Your task to perform on an android device: make emails show in primary in the gmail app Image 0: 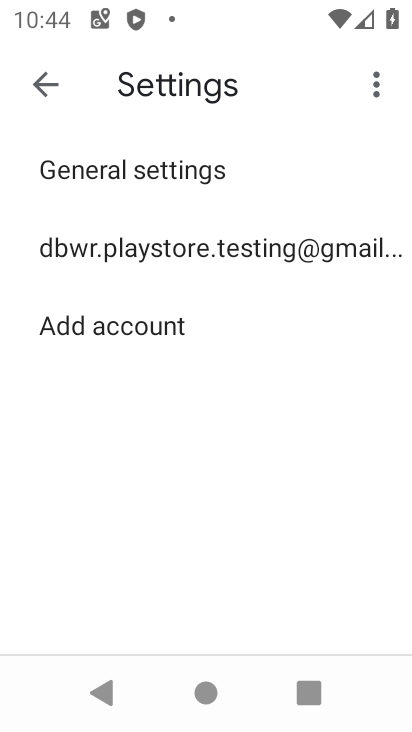
Step 0: click (127, 165)
Your task to perform on an android device: make emails show in primary in the gmail app Image 1: 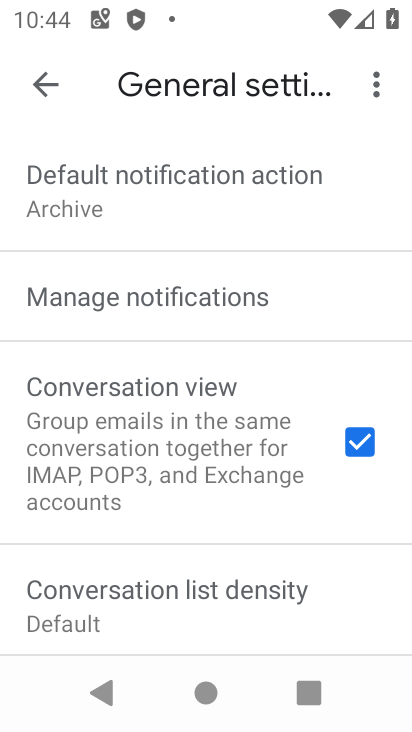
Step 1: click (35, 78)
Your task to perform on an android device: make emails show in primary in the gmail app Image 2: 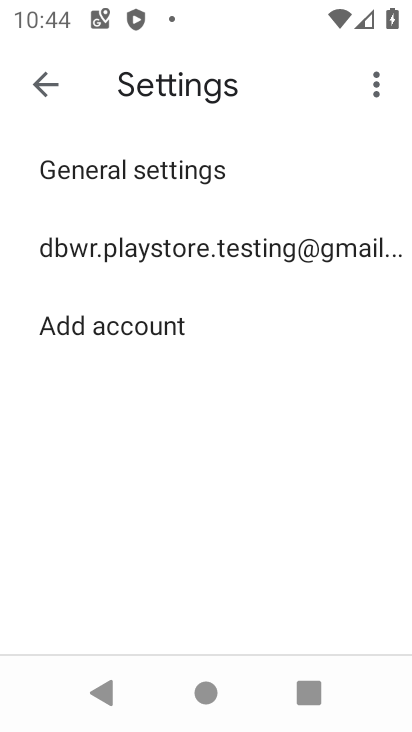
Step 2: click (119, 256)
Your task to perform on an android device: make emails show in primary in the gmail app Image 3: 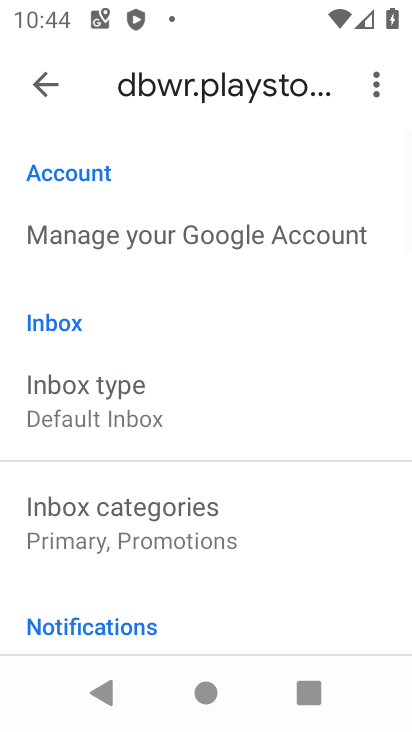
Step 3: click (69, 405)
Your task to perform on an android device: make emails show in primary in the gmail app Image 4: 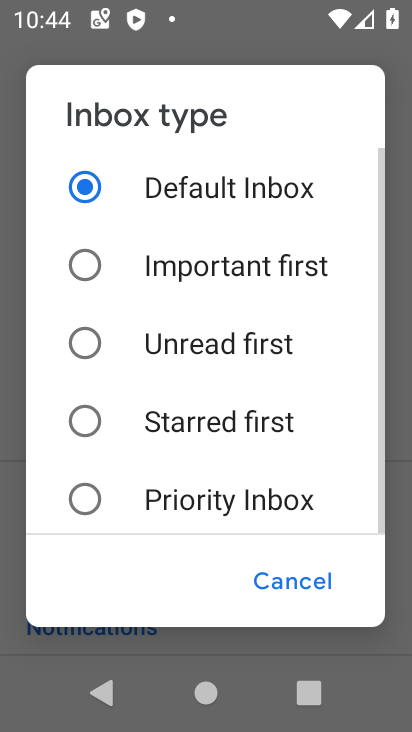
Step 4: click (76, 178)
Your task to perform on an android device: make emails show in primary in the gmail app Image 5: 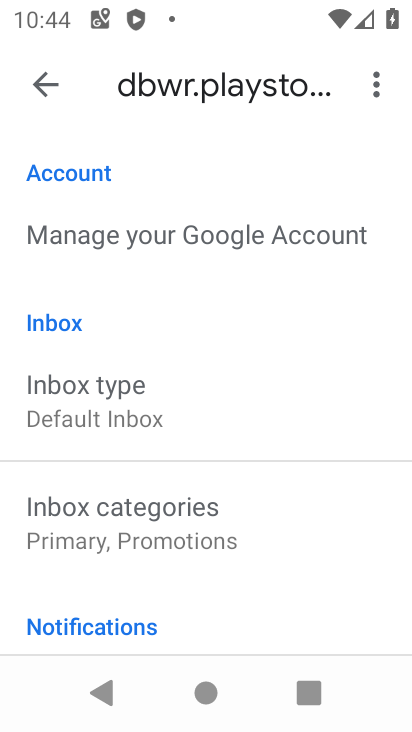
Step 5: click (278, 576)
Your task to perform on an android device: make emails show in primary in the gmail app Image 6: 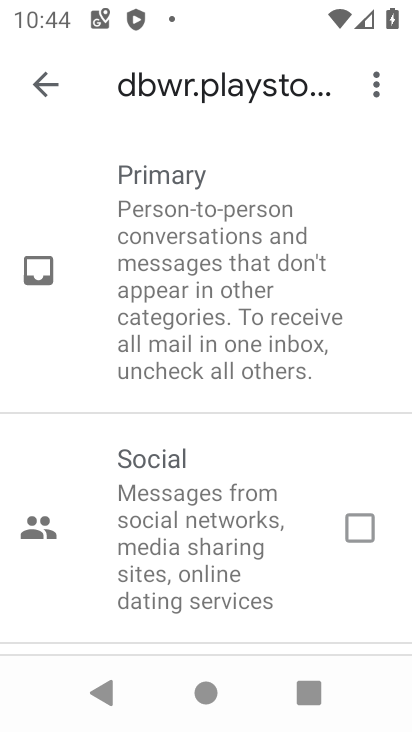
Step 6: drag from (272, 586) to (278, 271)
Your task to perform on an android device: make emails show in primary in the gmail app Image 7: 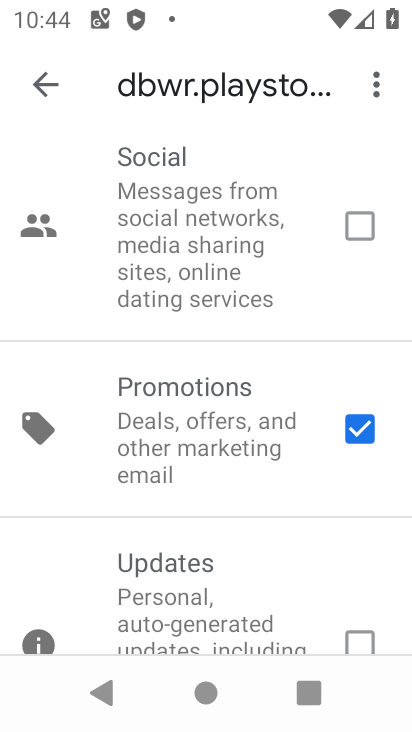
Step 7: click (365, 414)
Your task to perform on an android device: make emails show in primary in the gmail app Image 8: 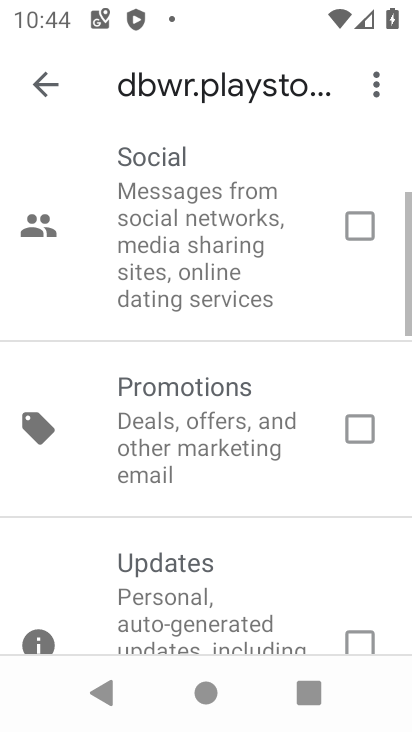
Step 8: task complete